Your task to perform on an android device: What's on my calendar today? Image 0: 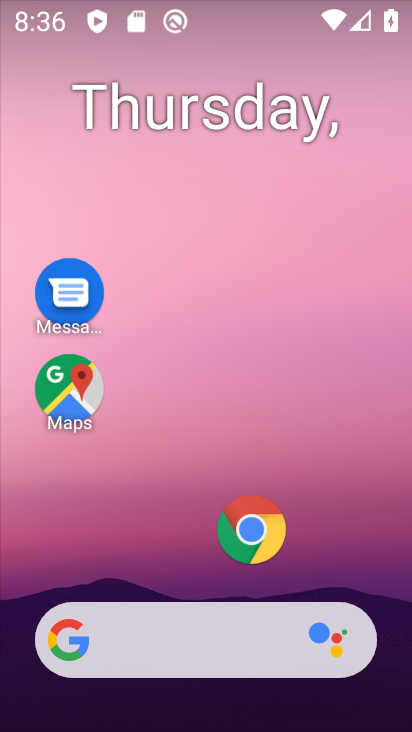
Step 0: click (195, 104)
Your task to perform on an android device: What's on my calendar today? Image 1: 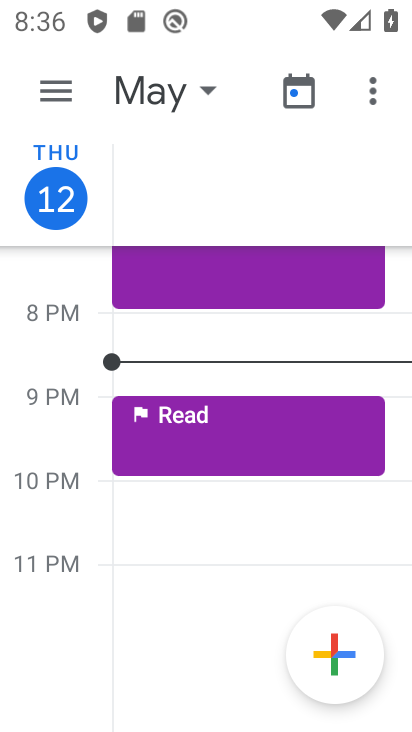
Step 1: task complete